Your task to perform on an android device: turn notification dots off Image 0: 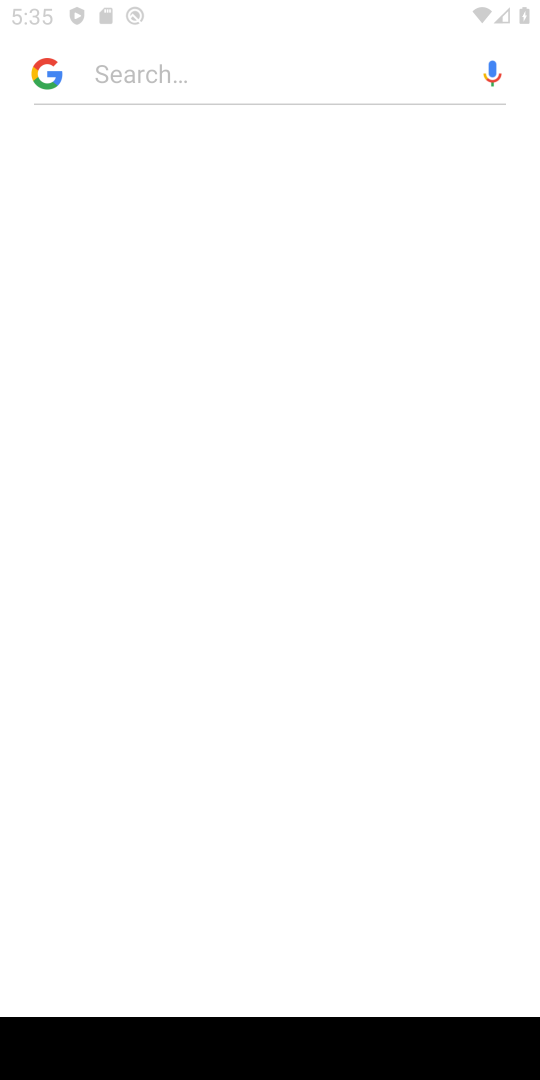
Step 0: drag from (252, 853) to (248, 342)
Your task to perform on an android device: turn notification dots off Image 1: 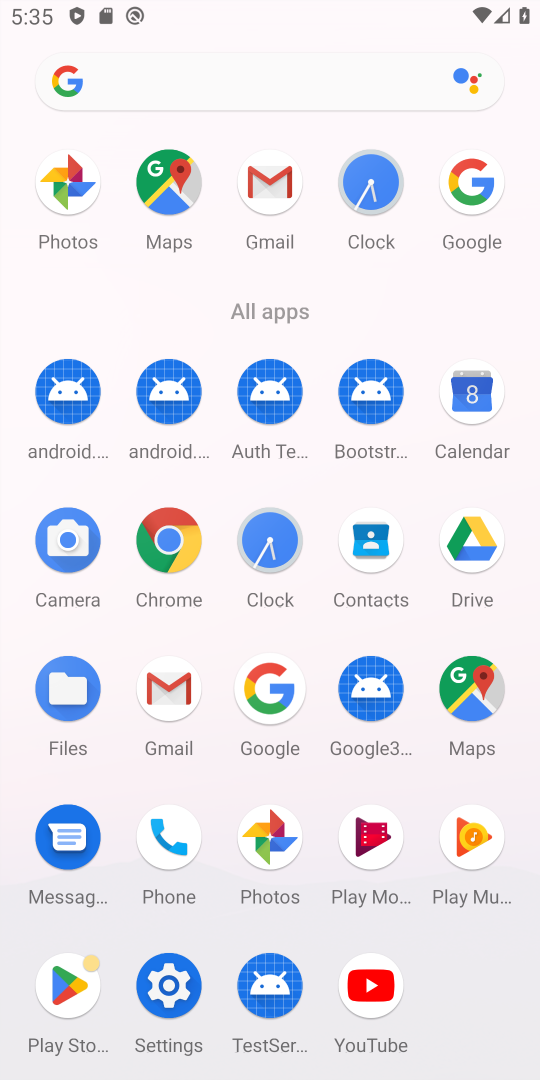
Step 1: click (168, 987)
Your task to perform on an android device: turn notification dots off Image 2: 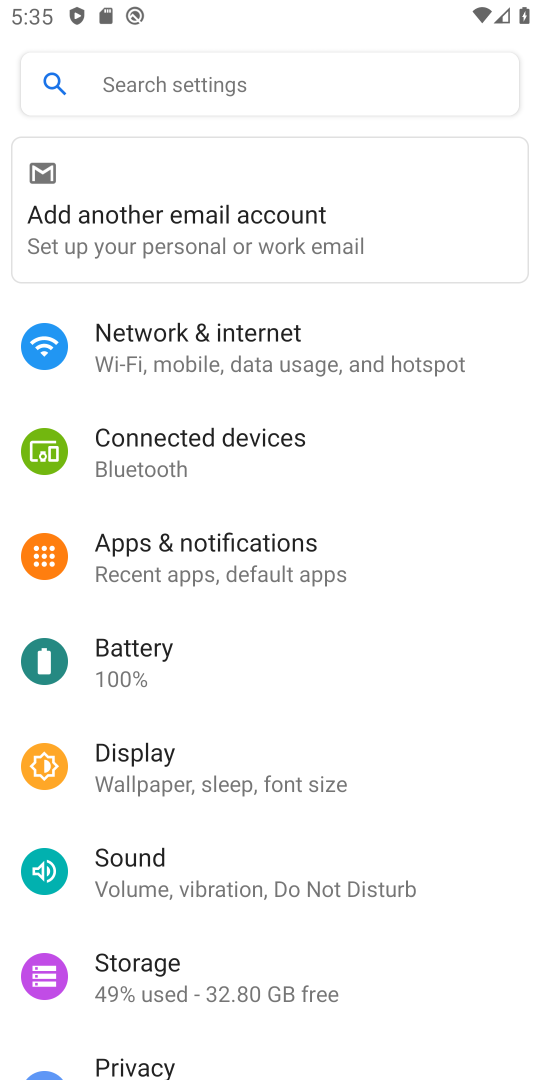
Step 2: click (211, 536)
Your task to perform on an android device: turn notification dots off Image 3: 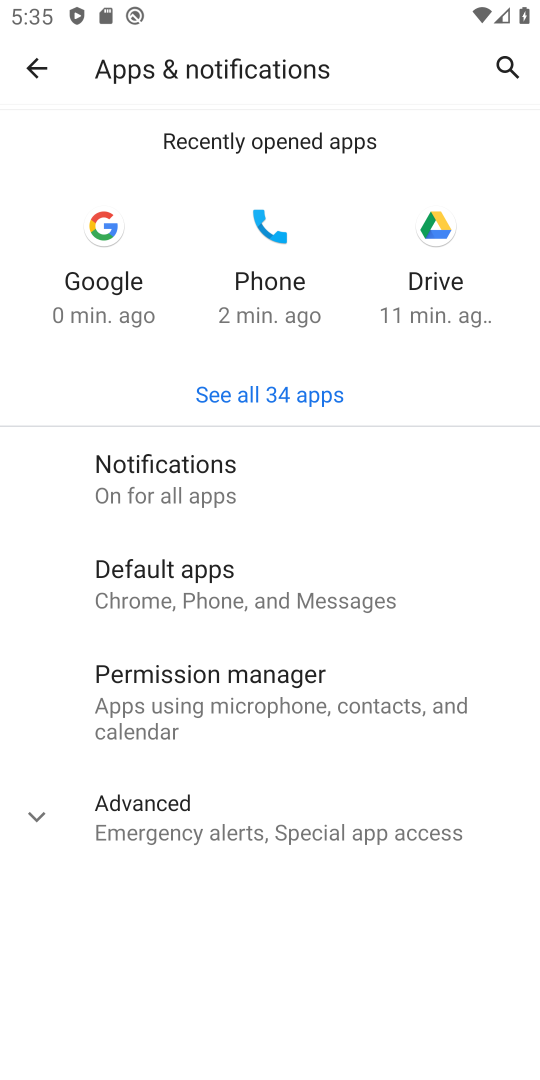
Step 3: click (156, 454)
Your task to perform on an android device: turn notification dots off Image 4: 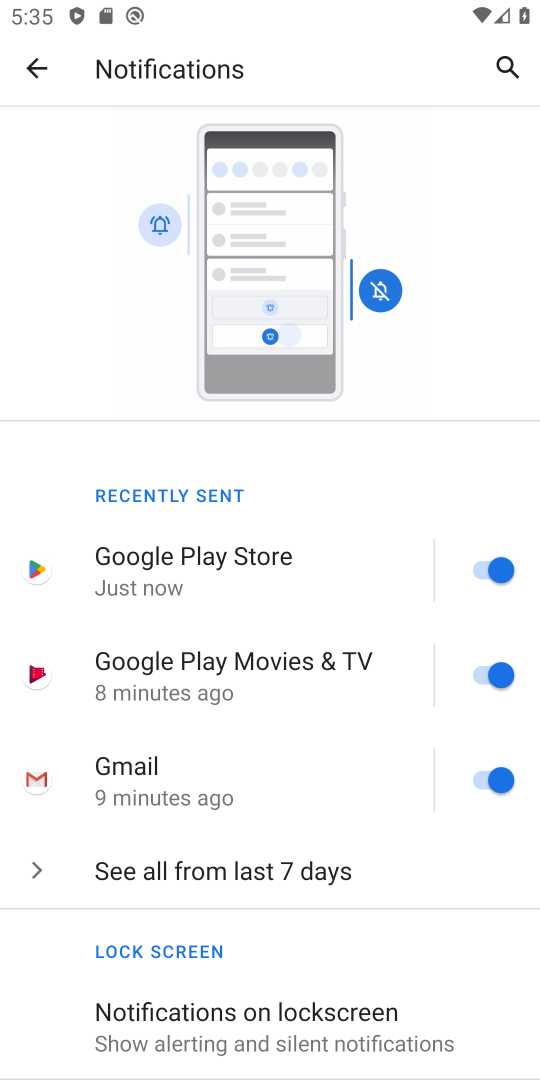
Step 4: drag from (310, 932) to (300, 321)
Your task to perform on an android device: turn notification dots off Image 5: 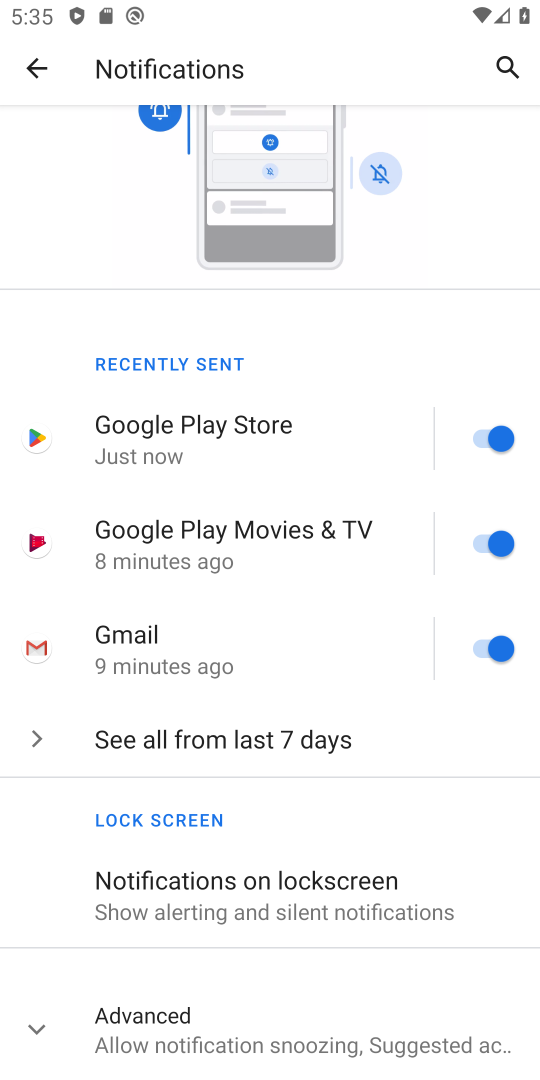
Step 5: click (34, 1025)
Your task to perform on an android device: turn notification dots off Image 6: 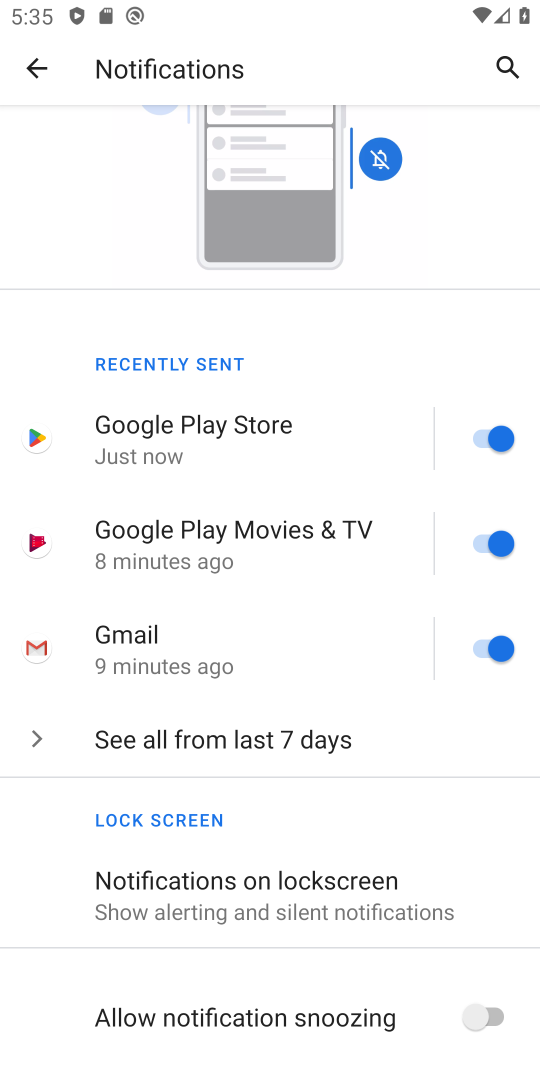
Step 6: drag from (304, 807) to (266, 303)
Your task to perform on an android device: turn notification dots off Image 7: 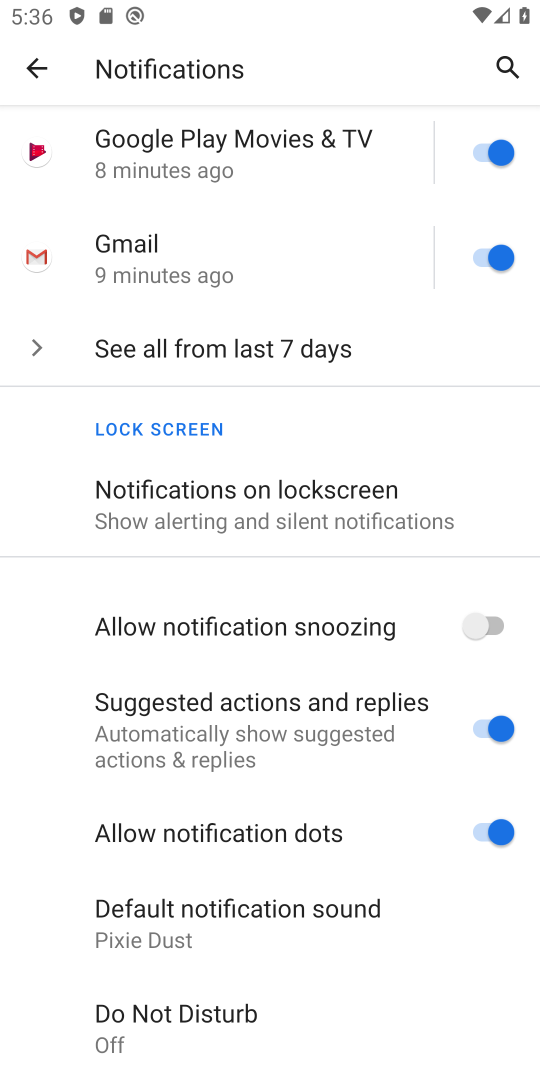
Step 7: click (492, 824)
Your task to perform on an android device: turn notification dots off Image 8: 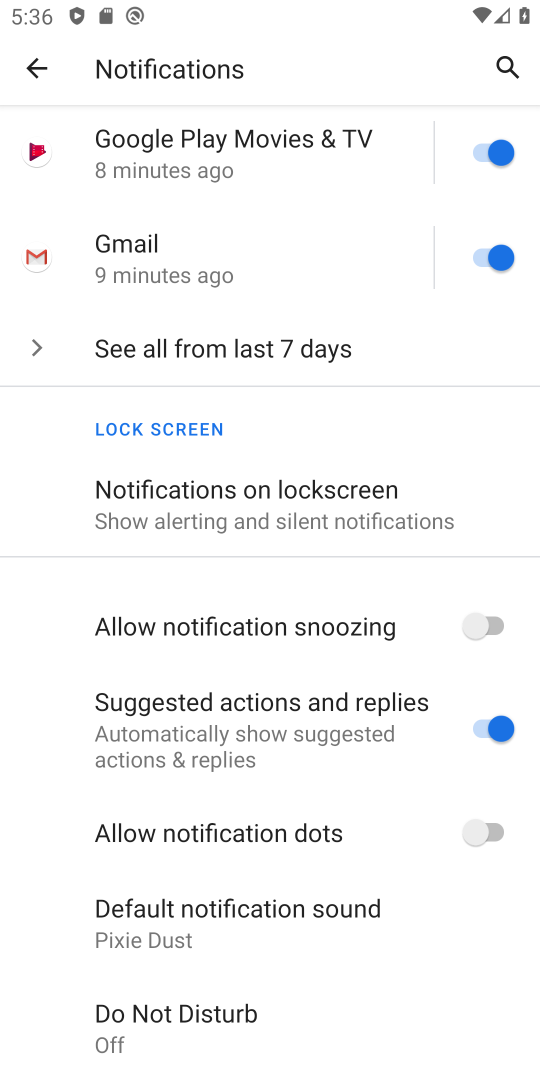
Step 8: task complete